Your task to perform on an android device: change the clock display to show seconds Image 0: 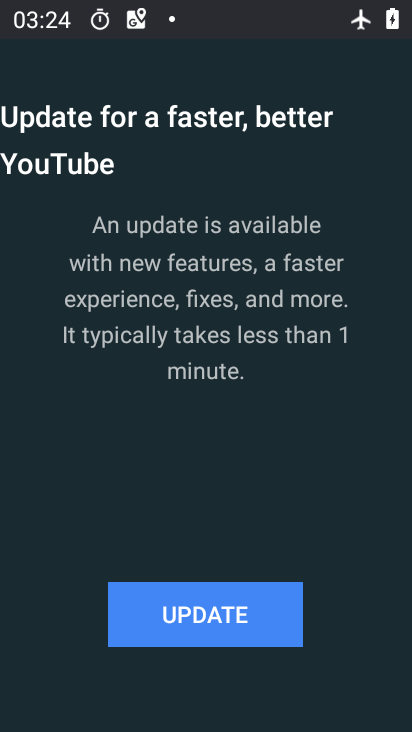
Step 0: press home button
Your task to perform on an android device: change the clock display to show seconds Image 1: 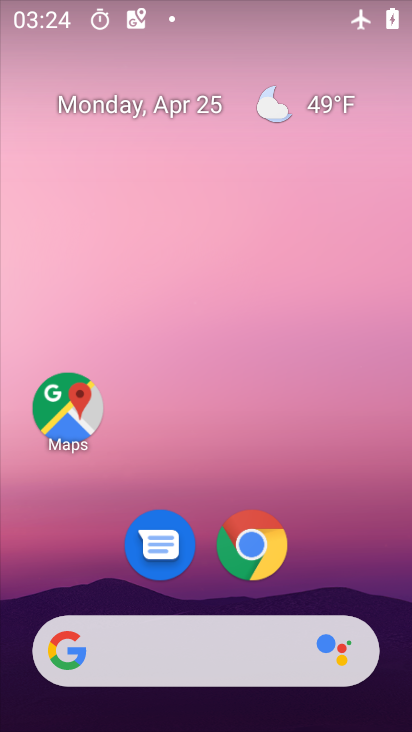
Step 1: drag from (227, 473) to (226, 17)
Your task to perform on an android device: change the clock display to show seconds Image 2: 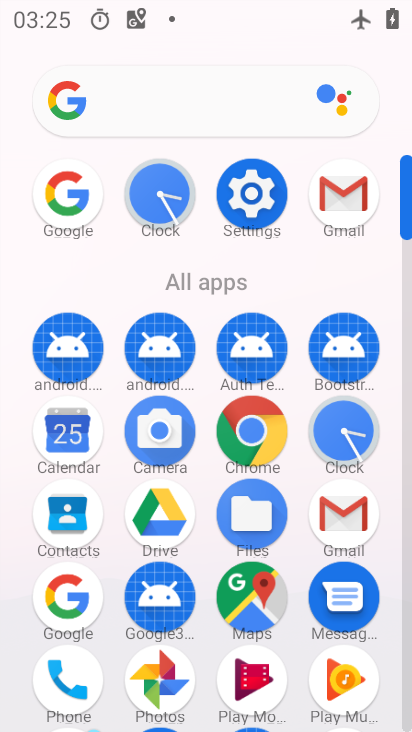
Step 2: click (159, 189)
Your task to perform on an android device: change the clock display to show seconds Image 3: 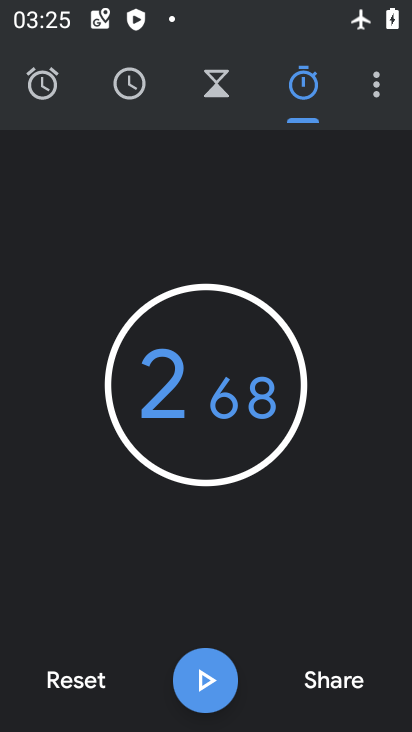
Step 3: click (378, 90)
Your task to perform on an android device: change the clock display to show seconds Image 4: 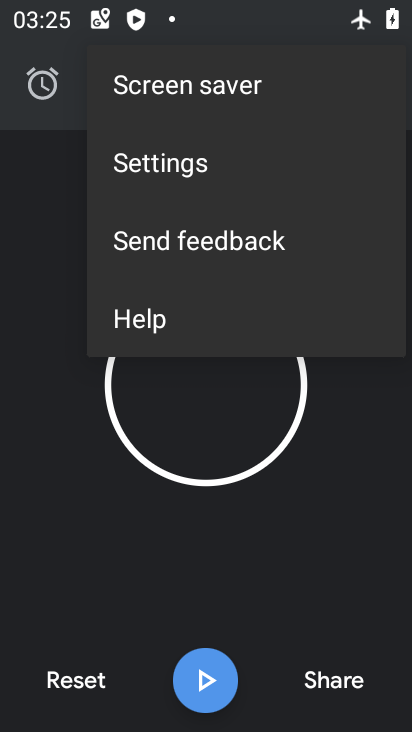
Step 4: click (205, 165)
Your task to perform on an android device: change the clock display to show seconds Image 5: 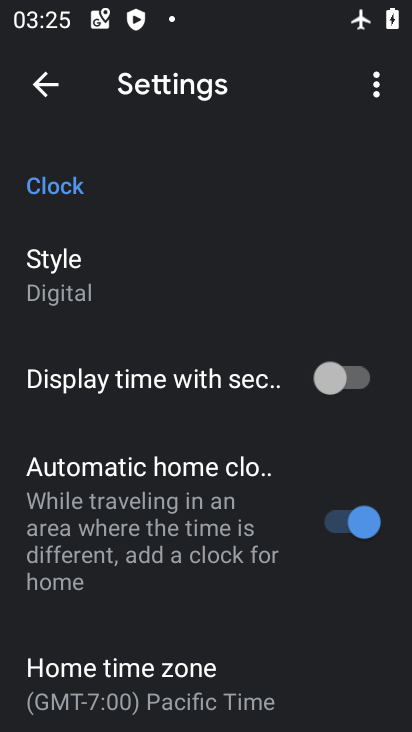
Step 5: click (328, 366)
Your task to perform on an android device: change the clock display to show seconds Image 6: 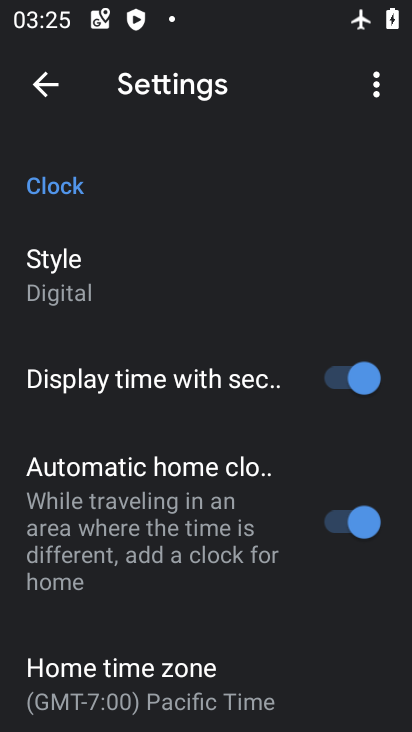
Step 6: task complete